Your task to perform on an android device: Open the calendar and show me this week's events? Image 0: 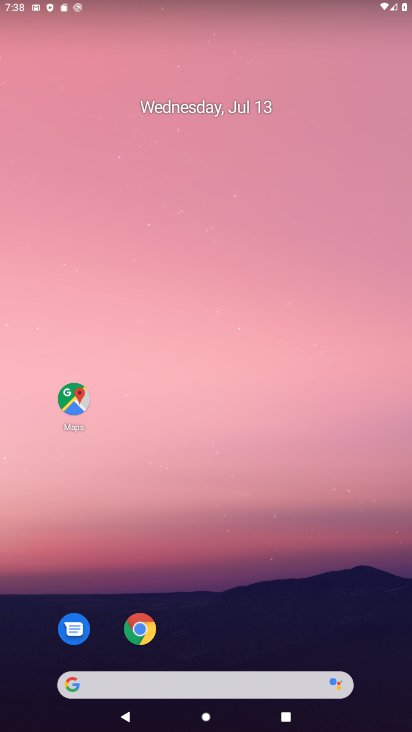
Step 0: drag from (186, 647) to (212, 91)
Your task to perform on an android device: Open the calendar and show me this week's events? Image 1: 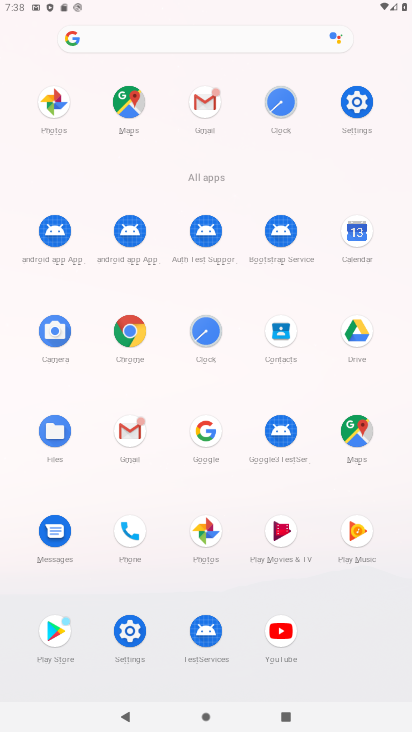
Step 1: click (358, 232)
Your task to perform on an android device: Open the calendar and show me this week's events? Image 2: 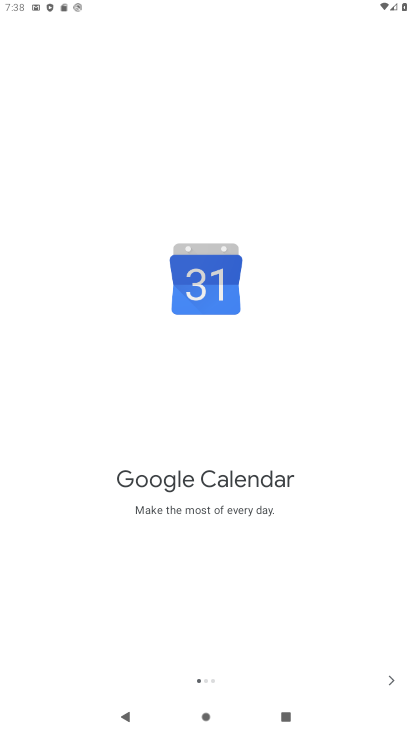
Step 2: click (391, 681)
Your task to perform on an android device: Open the calendar and show me this week's events? Image 3: 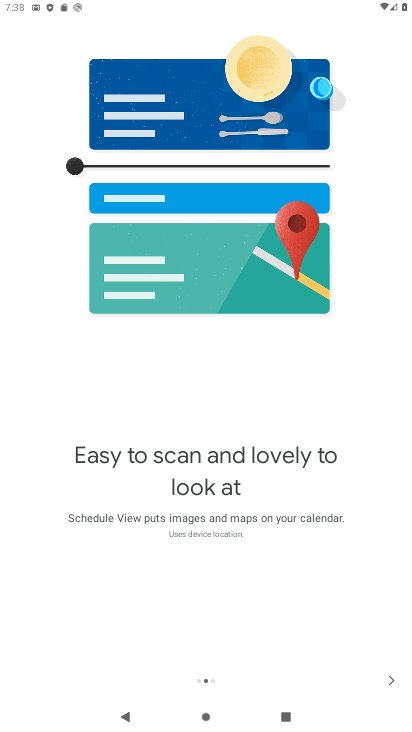
Step 3: click (391, 681)
Your task to perform on an android device: Open the calendar and show me this week's events? Image 4: 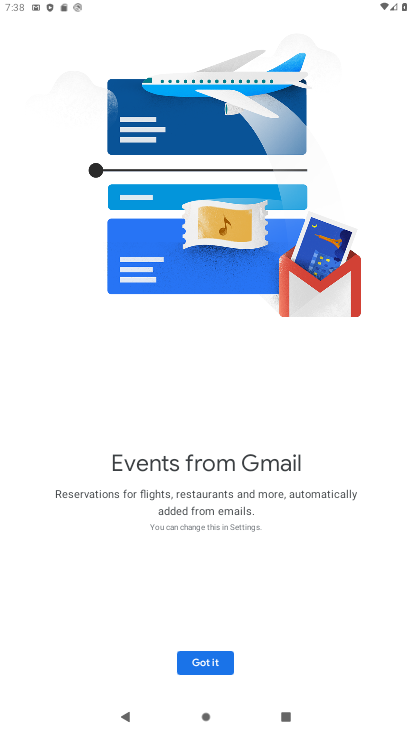
Step 4: click (218, 659)
Your task to perform on an android device: Open the calendar and show me this week's events? Image 5: 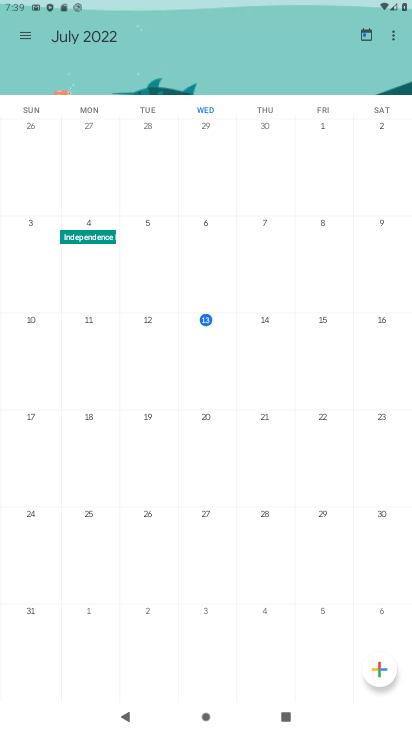
Step 5: click (318, 328)
Your task to perform on an android device: Open the calendar and show me this week's events? Image 6: 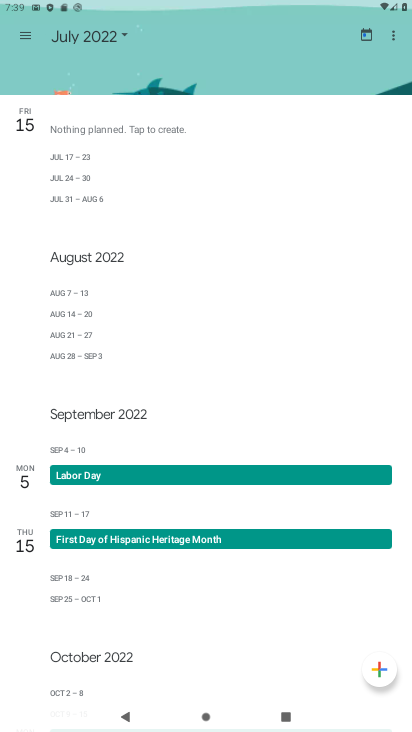
Step 6: task complete